Your task to perform on an android device: turn on improve location accuracy Image 0: 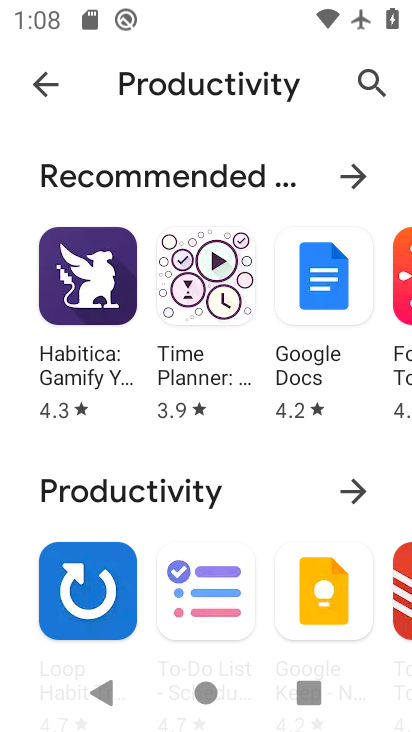
Step 0: press home button
Your task to perform on an android device: turn on improve location accuracy Image 1: 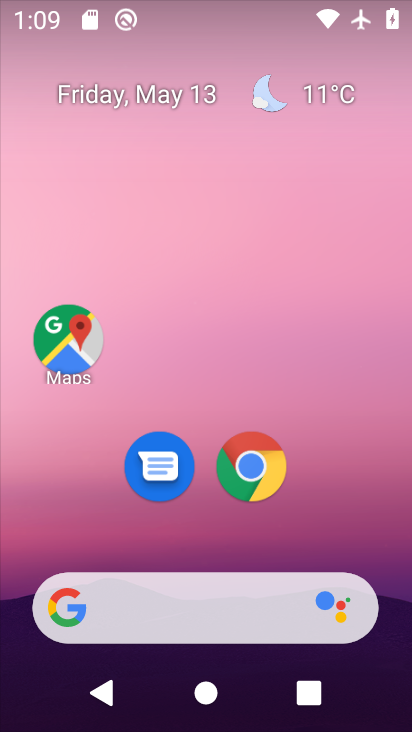
Step 1: drag from (302, 531) to (360, 114)
Your task to perform on an android device: turn on improve location accuracy Image 2: 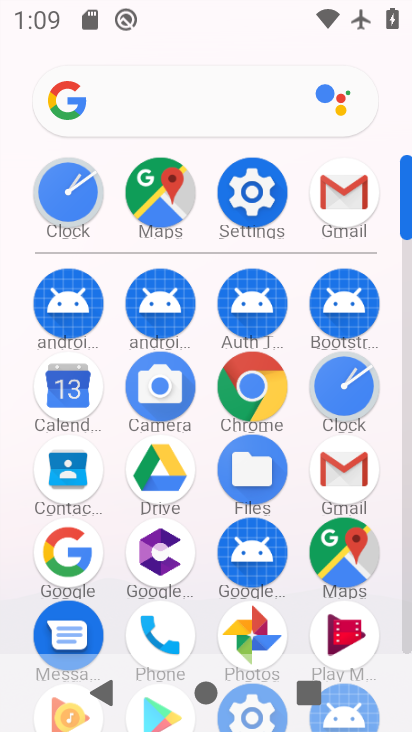
Step 2: click (239, 181)
Your task to perform on an android device: turn on improve location accuracy Image 3: 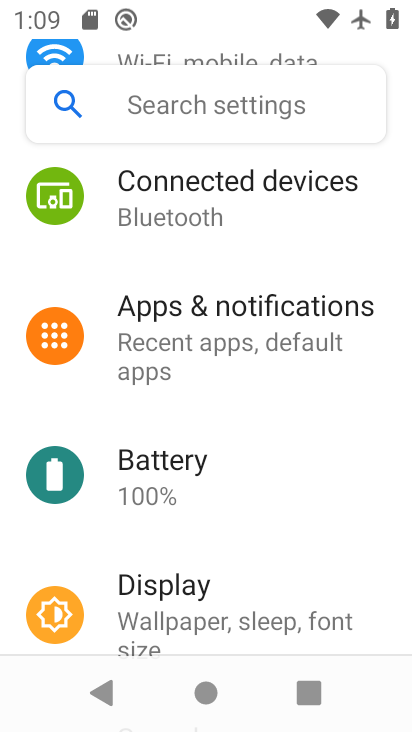
Step 3: drag from (234, 568) to (257, 394)
Your task to perform on an android device: turn on improve location accuracy Image 4: 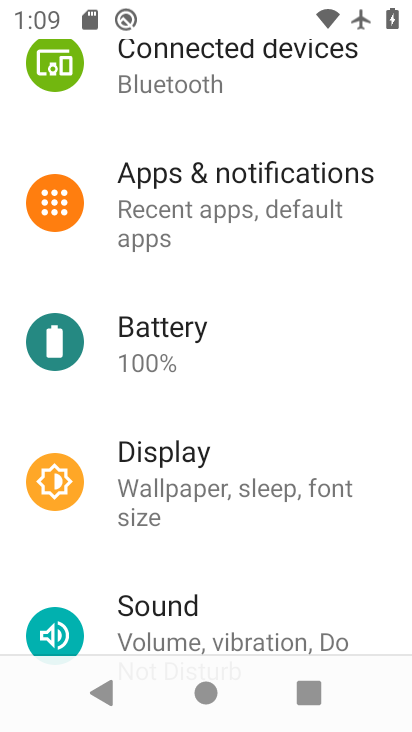
Step 4: drag from (242, 548) to (309, 175)
Your task to perform on an android device: turn on improve location accuracy Image 5: 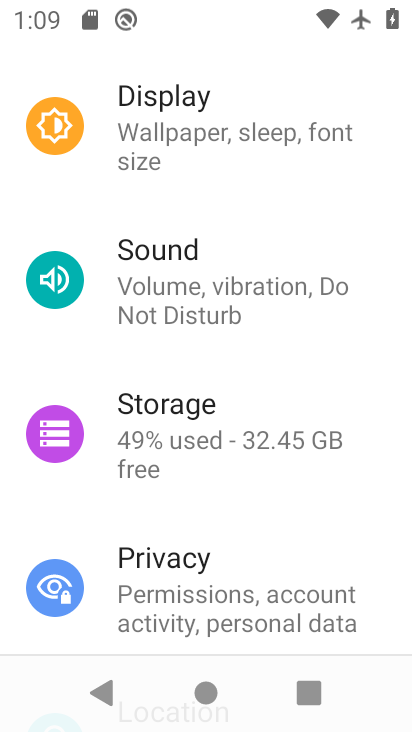
Step 5: drag from (221, 582) to (200, 309)
Your task to perform on an android device: turn on improve location accuracy Image 6: 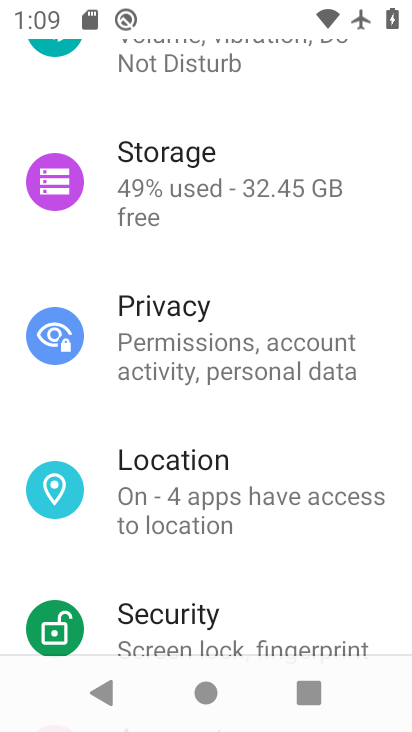
Step 6: click (177, 507)
Your task to perform on an android device: turn on improve location accuracy Image 7: 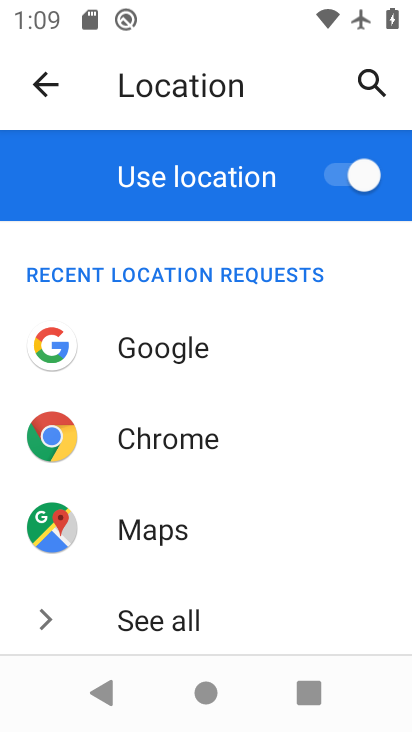
Step 7: drag from (206, 603) to (232, 284)
Your task to perform on an android device: turn on improve location accuracy Image 8: 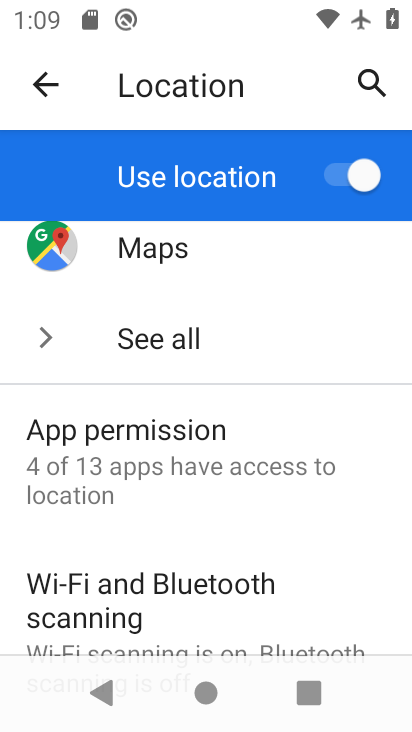
Step 8: drag from (271, 633) to (348, 316)
Your task to perform on an android device: turn on improve location accuracy Image 9: 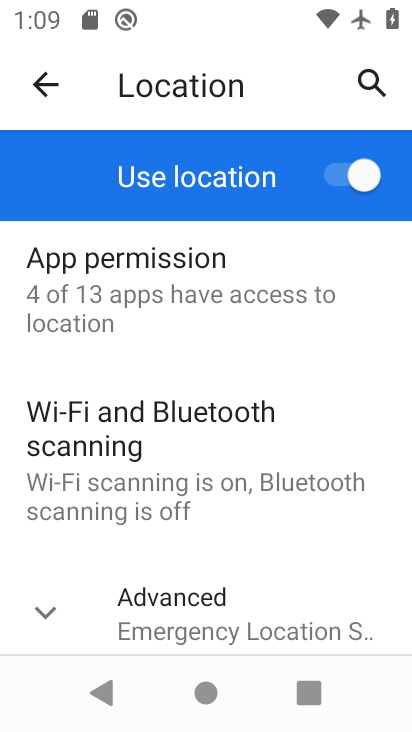
Step 9: click (206, 591)
Your task to perform on an android device: turn on improve location accuracy Image 10: 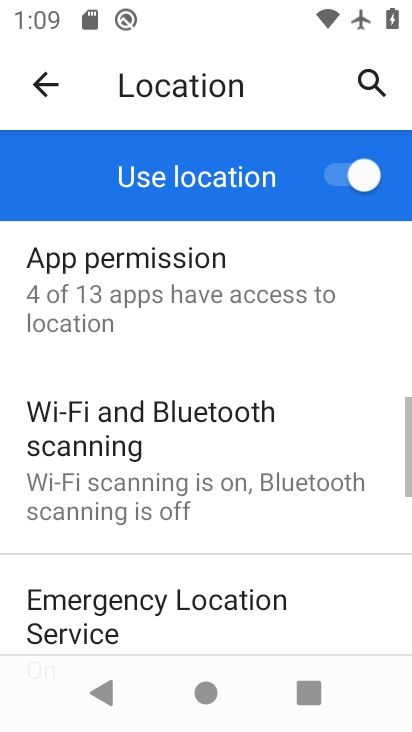
Step 10: drag from (222, 572) to (284, 320)
Your task to perform on an android device: turn on improve location accuracy Image 11: 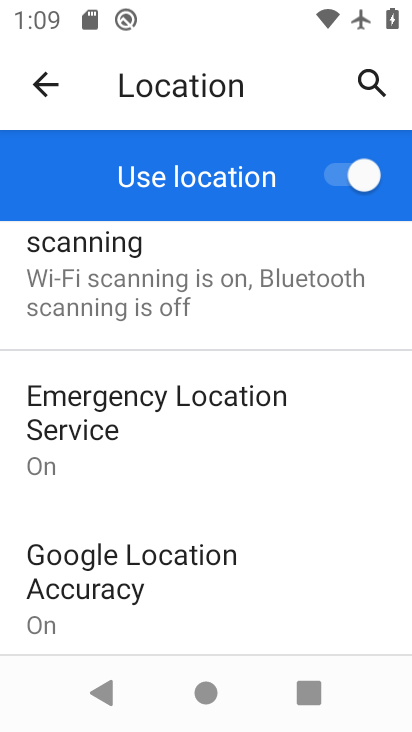
Step 11: drag from (228, 574) to (232, 278)
Your task to perform on an android device: turn on improve location accuracy Image 12: 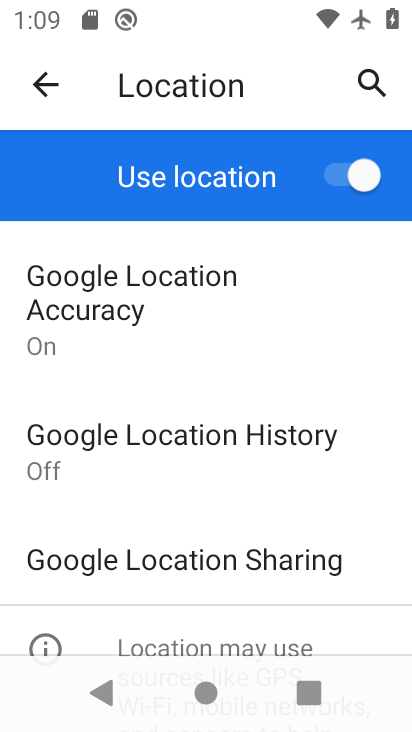
Step 12: click (195, 297)
Your task to perform on an android device: turn on improve location accuracy Image 13: 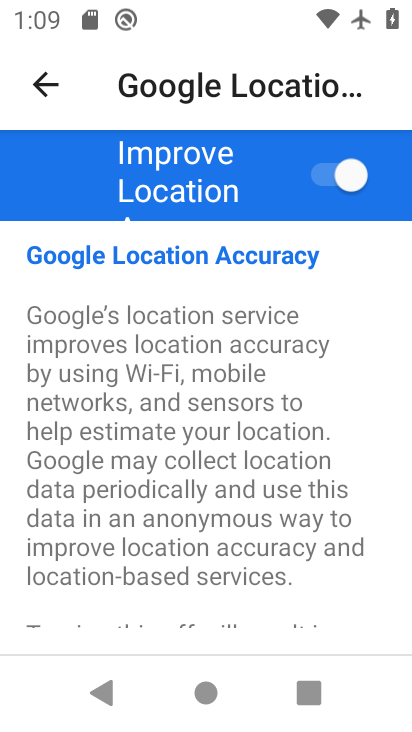
Step 13: task complete